Your task to perform on an android device: set the timer Image 0: 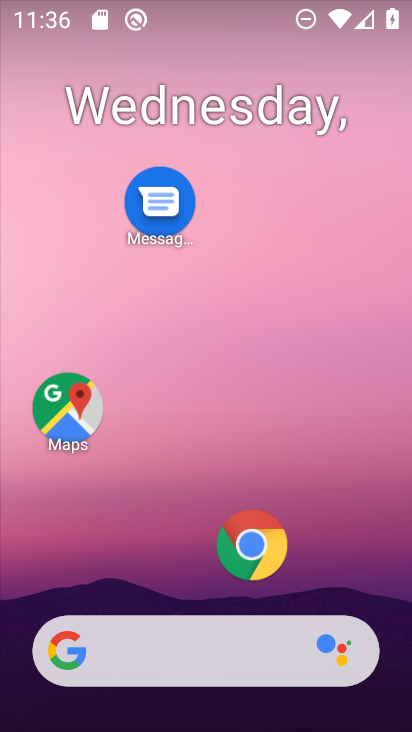
Step 0: drag from (173, 592) to (208, 241)
Your task to perform on an android device: set the timer Image 1: 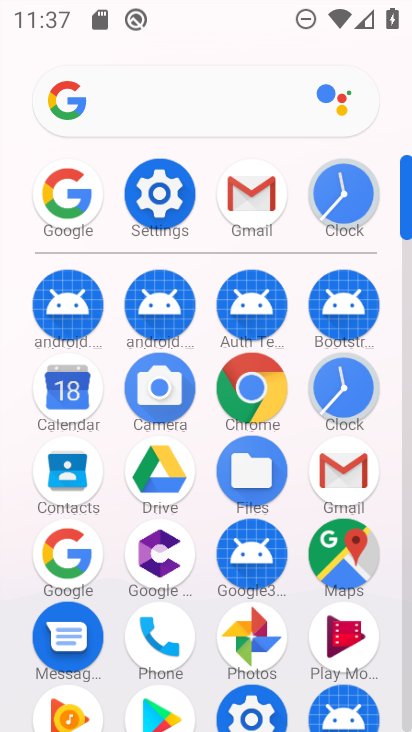
Step 1: click (332, 393)
Your task to perform on an android device: set the timer Image 2: 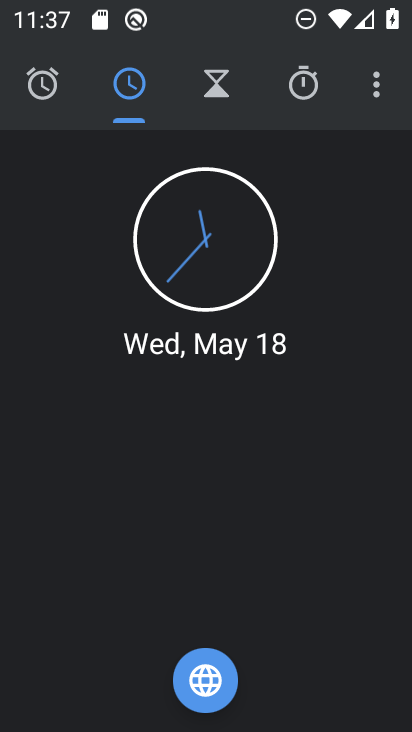
Step 2: click (215, 85)
Your task to perform on an android device: set the timer Image 3: 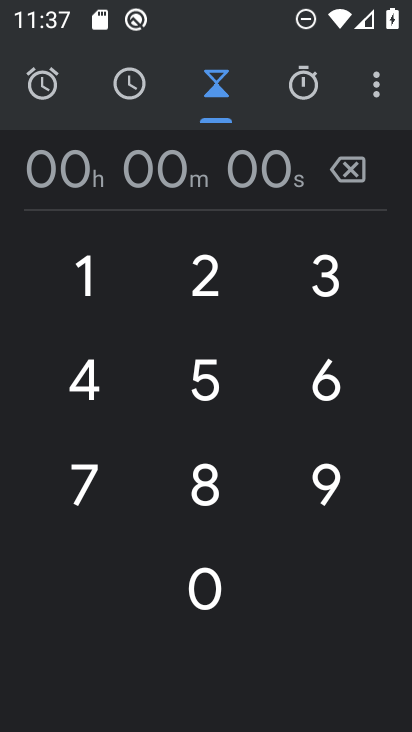
Step 3: click (254, 177)
Your task to perform on an android device: set the timer Image 4: 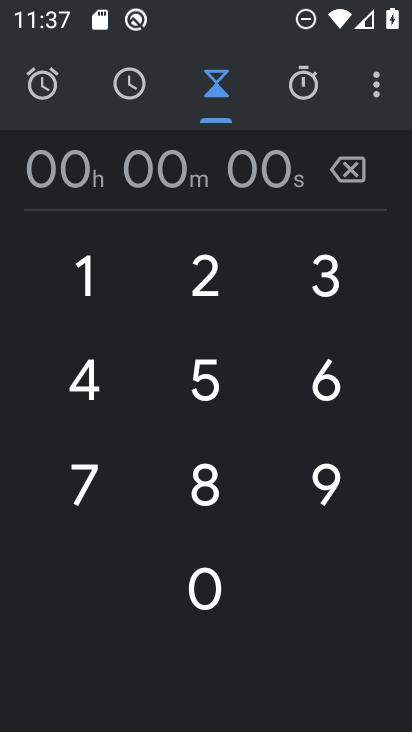
Step 4: type "22"
Your task to perform on an android device: set the timer Image 5: 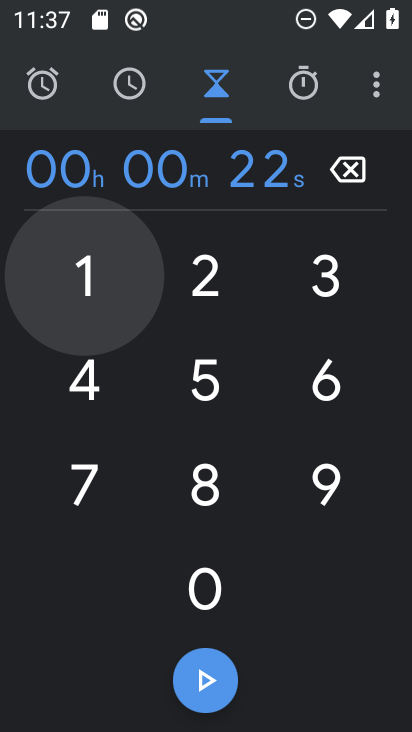
Step 5: click (199, 685)
Your task to perform on an android device: set the timer Image 6: 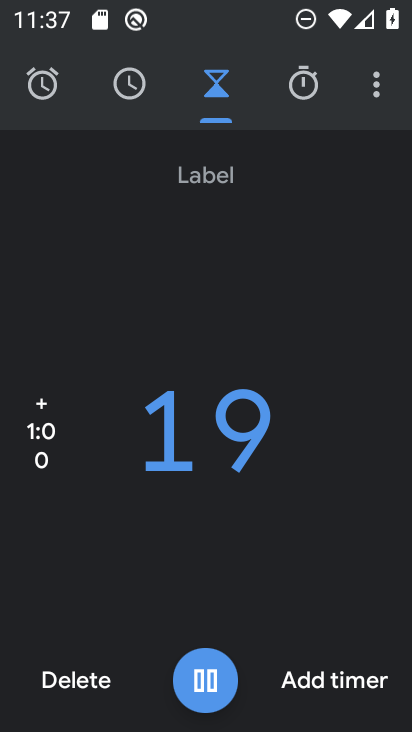
Step 6: task complete